Your task to perform on an android device: turn on the 12-hour format for clock Image 0: 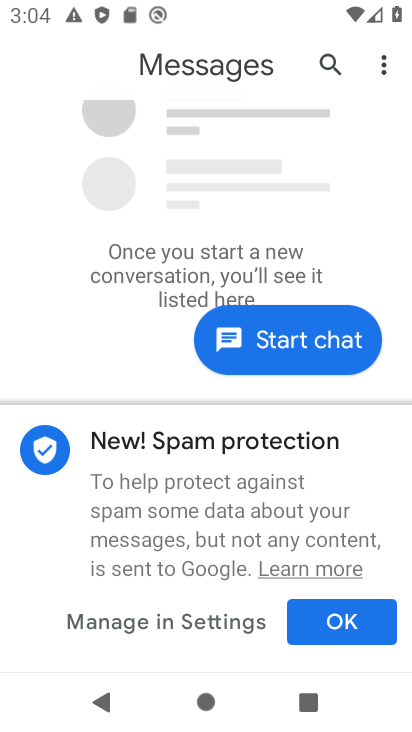
Step 0: press home button
Your task to perform on an android device: turn on the 12-hour format for clock Image 1: 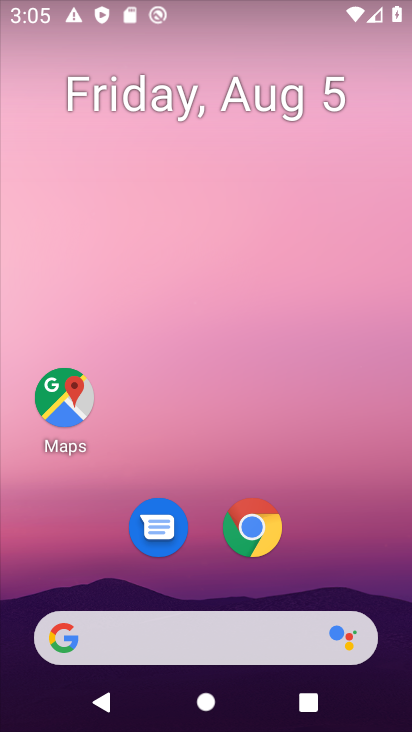
Step 1: drag from (236, 426) to (280, 111)
Your task to perform on an android device: turn on the 12-hour format for clock Image 2: 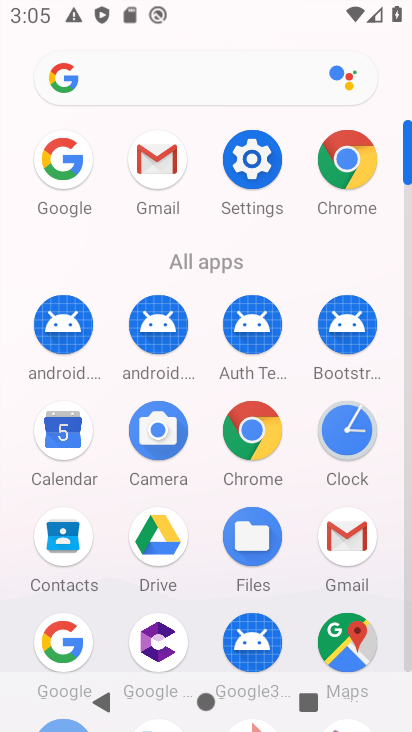
Step 2: click (349, 443)
Your task to perform on an android device: turn on the 12-hour format for clock Image 3: 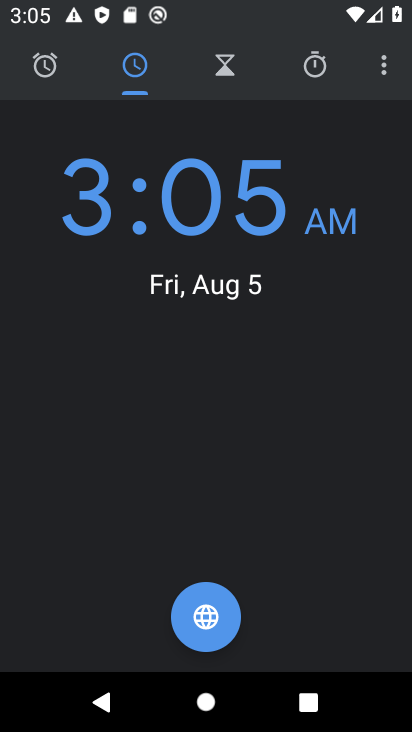
Step 3: click (383, 76)
Your task to perform on an android device: turn on the 12-hour format for clock Image 4: 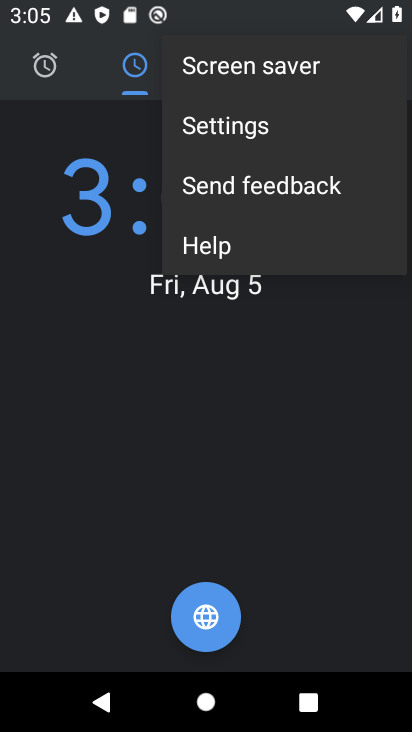
Step 4: click (245, 120)
Your task to perform on an android device: turn on the 12-hour format for clock Image 5: 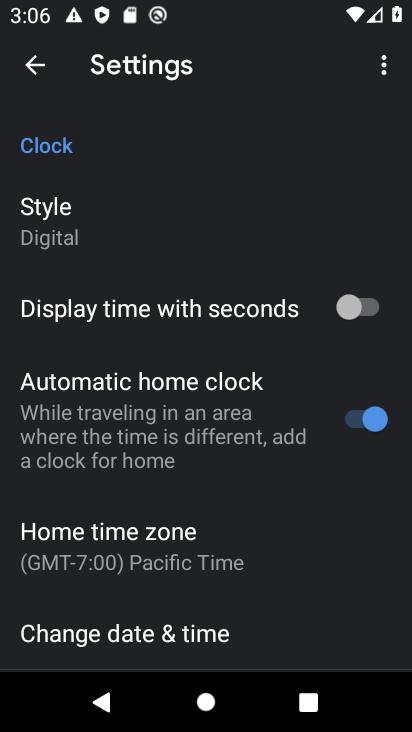
Step 5: click (135, 629)
Your task to perform on an android device: turn on the 12-hour format for clock Image 6: 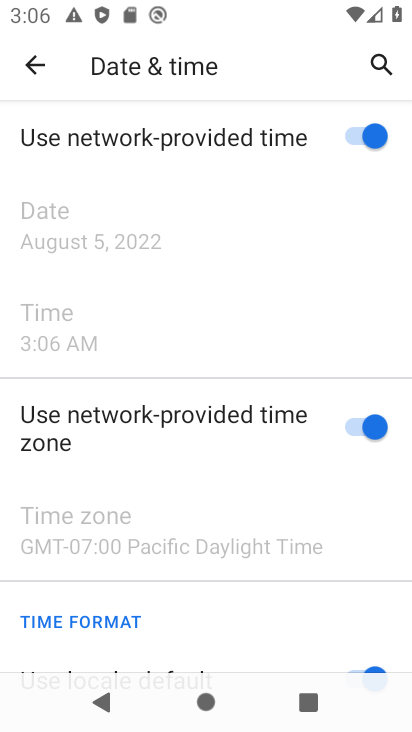
Step 6: task complete